Your task to perform on an android device: When is my next appointment? Image 0: 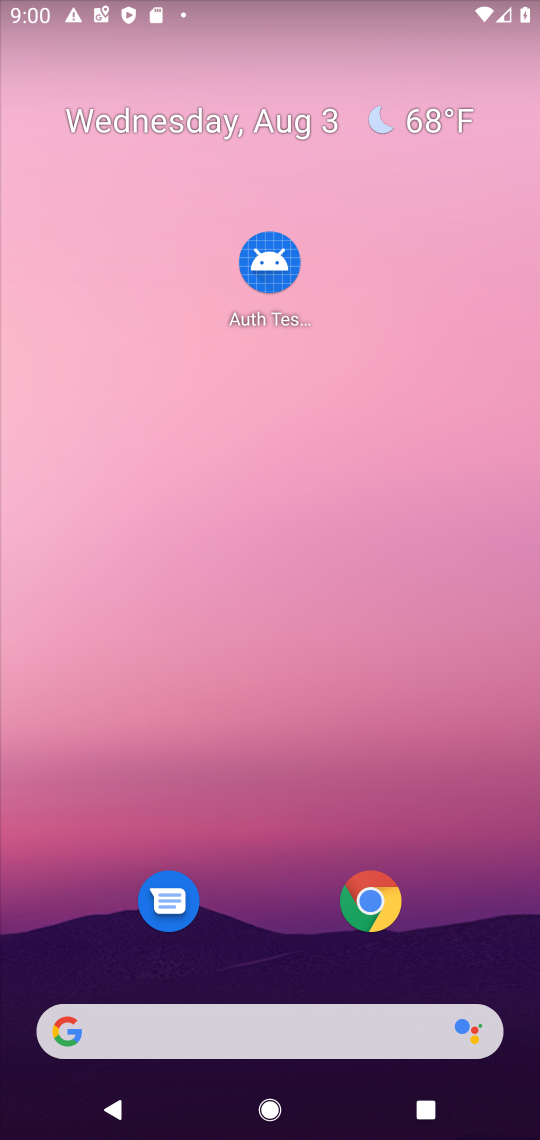
Step 0: drag from (483, 956) to (385, 342)
Your task to perform on an android device: When is my next appointment? Image 1: 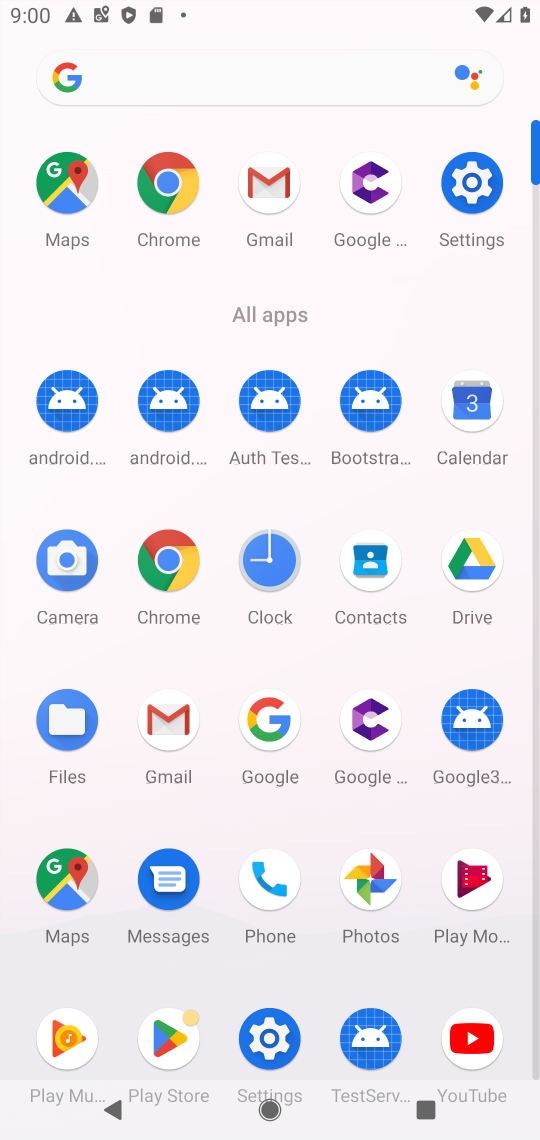
Step 1: click (484, 413)
Your task to perform on an android device: When is my next appointment? Image 2: 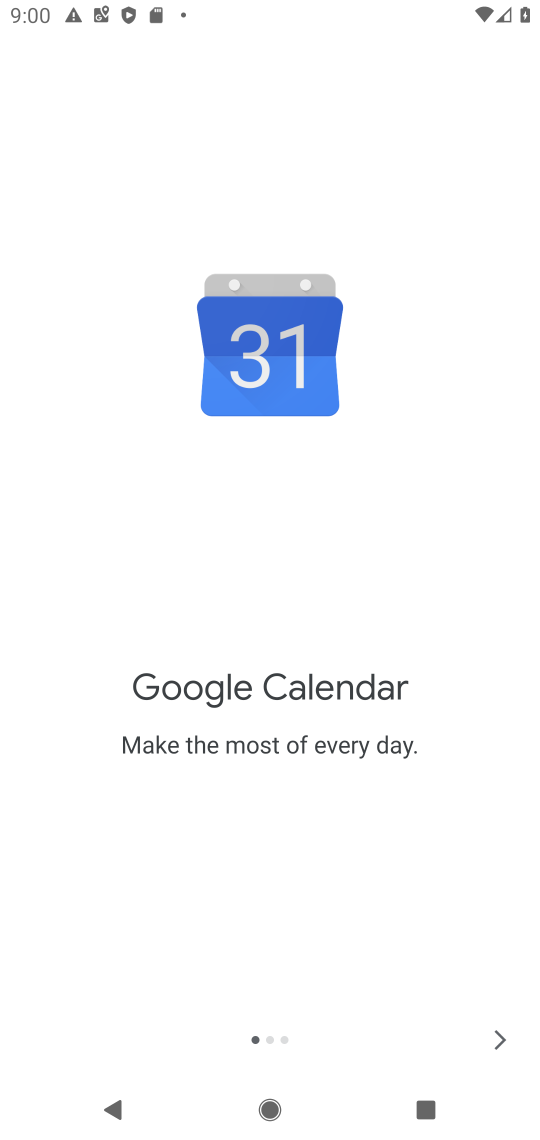
Step 2: click (502, 1043)
Your task to perform on an android device: When is my next appointment? Image 3: 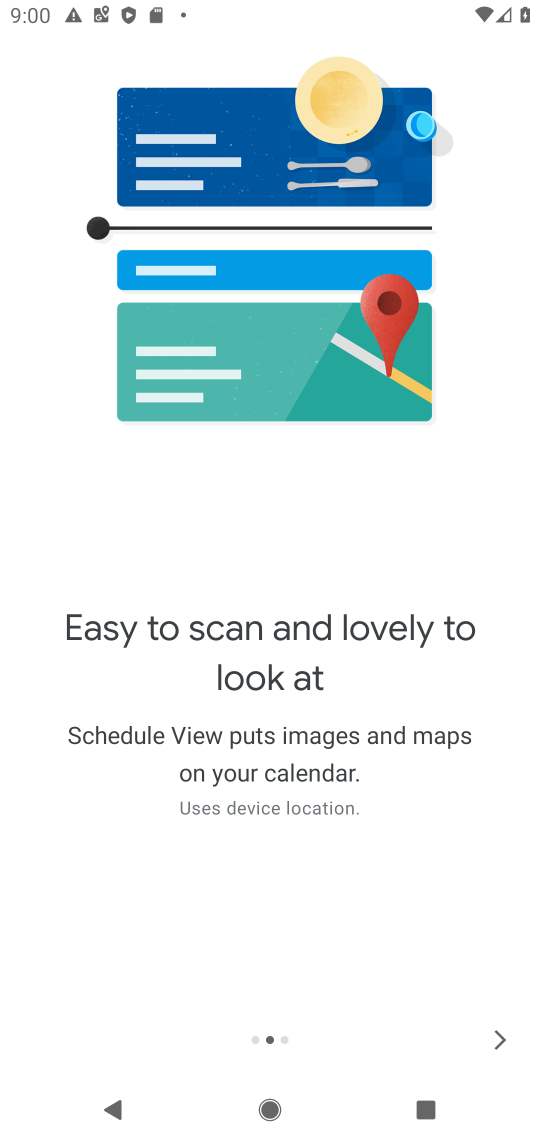
Step 3: click (502, 1043)
Your task to perform on an android device: When is my next appointment? Image 4: 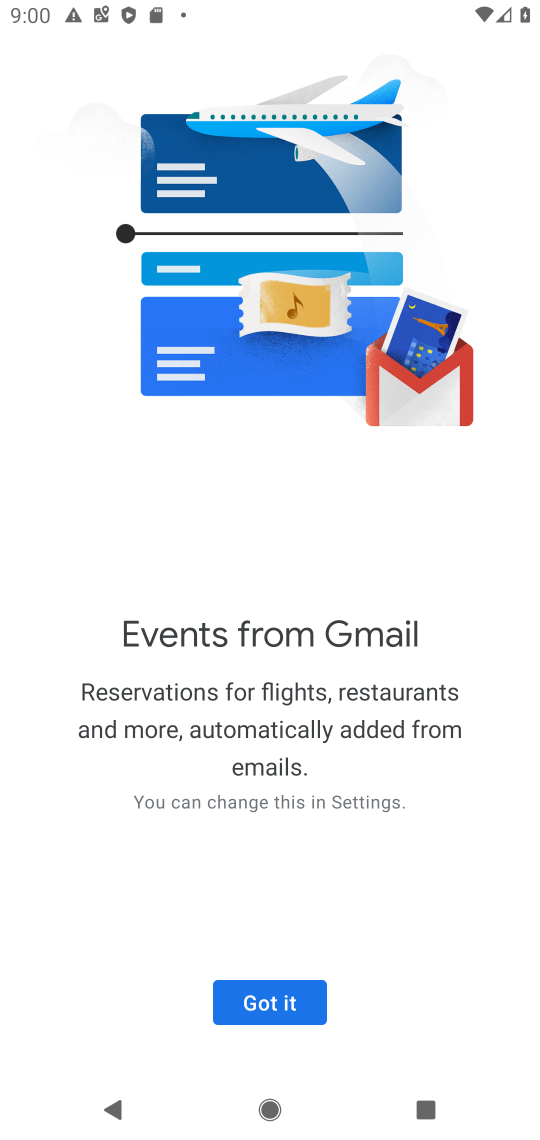
Step 4: click (285, 1014)
Your task to perform on an android device: When is my next appointment? Image 5: 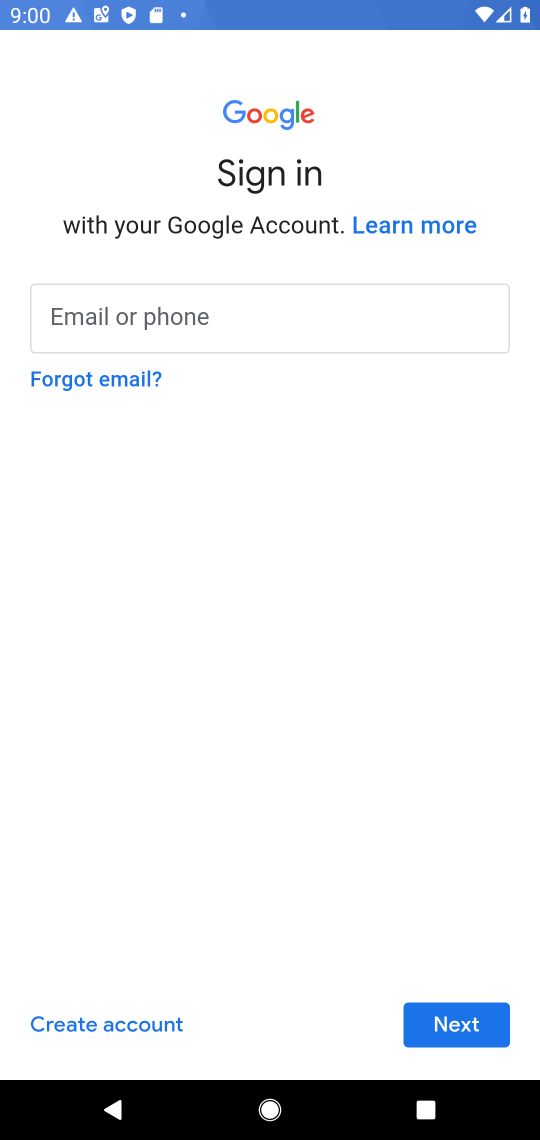
Step 5: task complete